Your task to perform on an android device: turn off picture-in-picture Image 0: 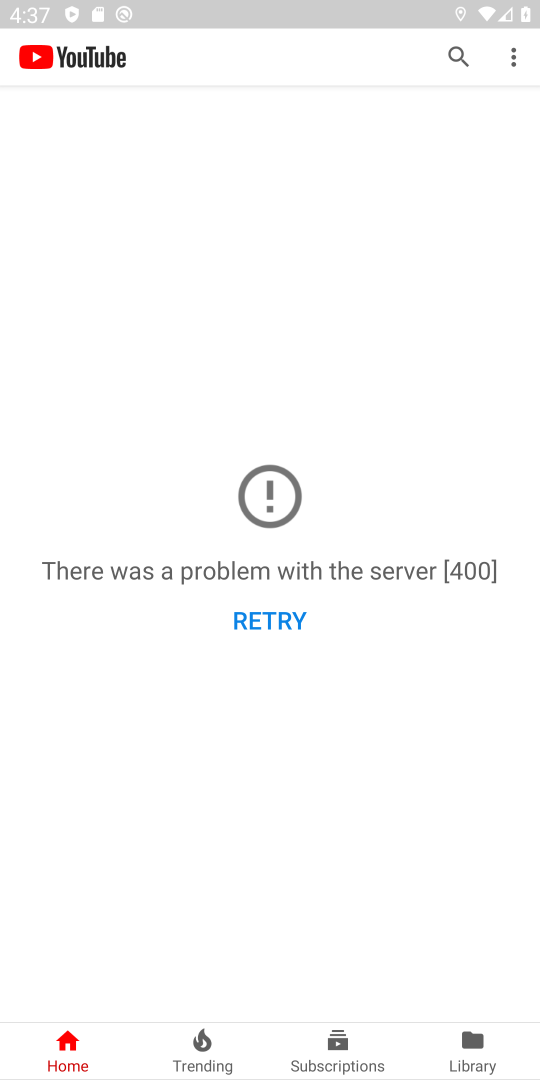
Step 0: press back button
Your task to perform on an android device: turn off picture-in-picture Image 1: 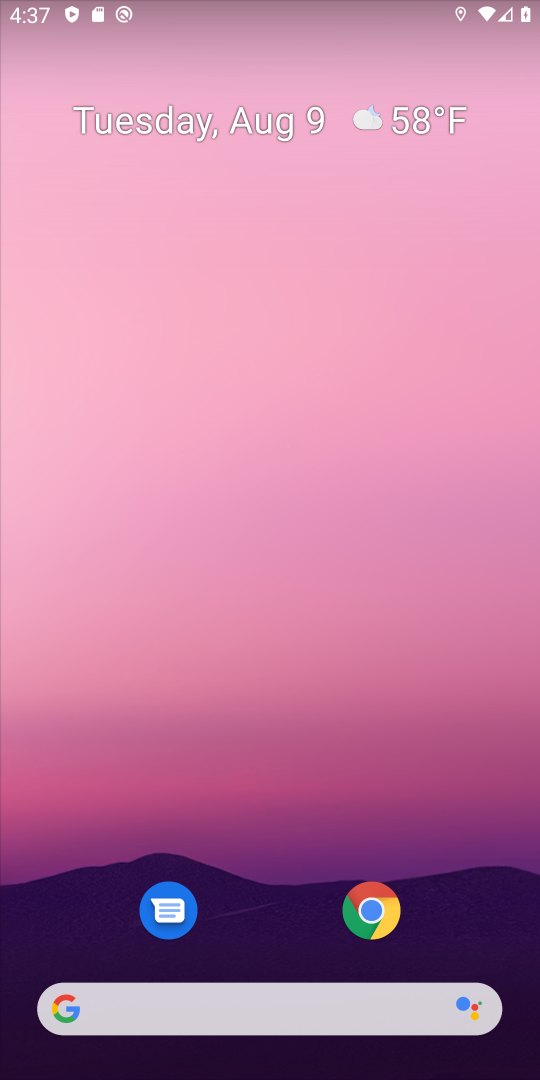
Step 1: click (386, 904)
Your task to perform on an android device: turn off picture-in-picture Image 2: 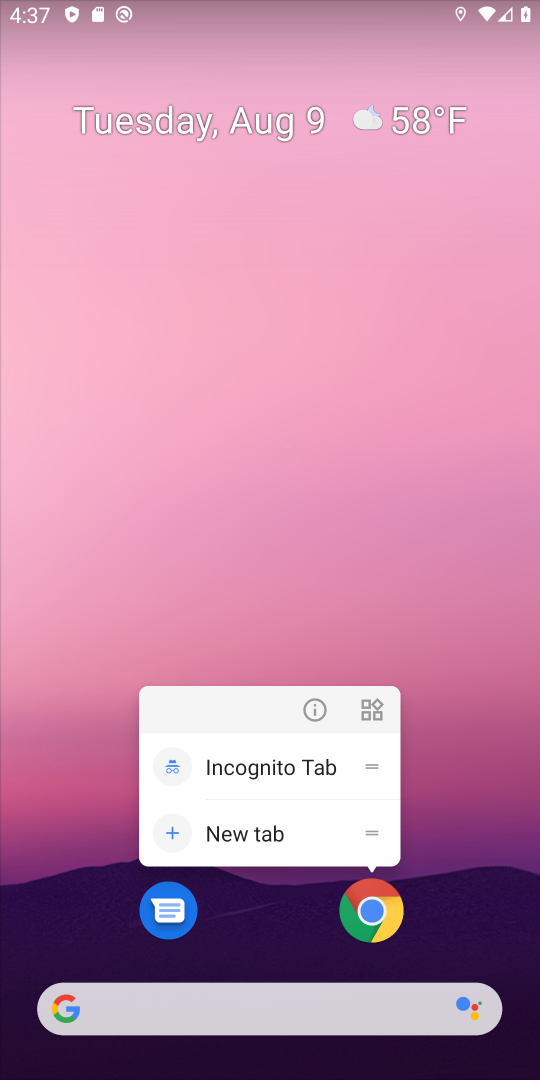
Step 2: click (319, 708)
Your task to perform on an android device: turn off picture-in-picture Image 3: 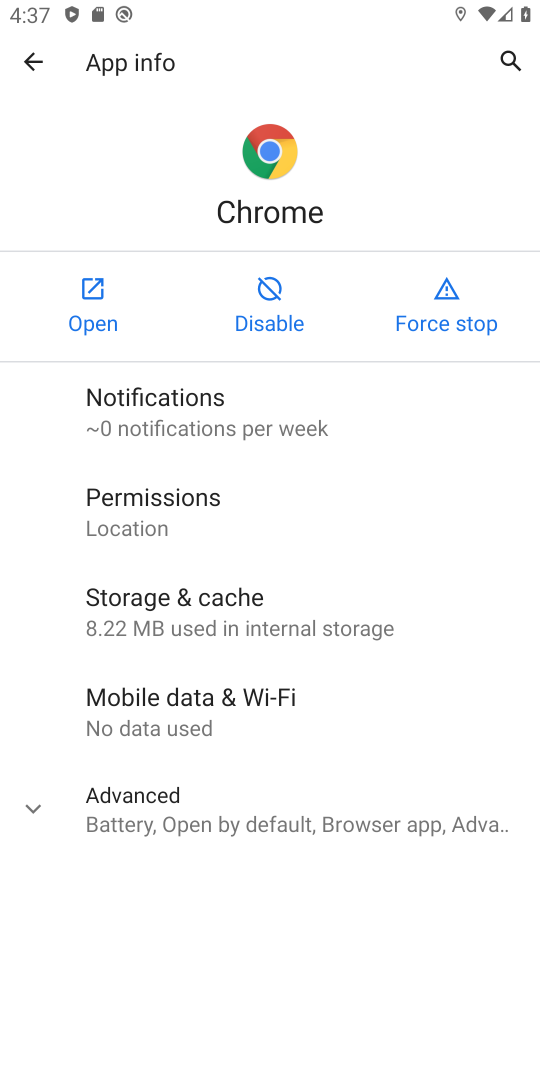
Step 3: click (145, 818)
Your task to perform on an android device: turn off picture-in-picture Image 4: 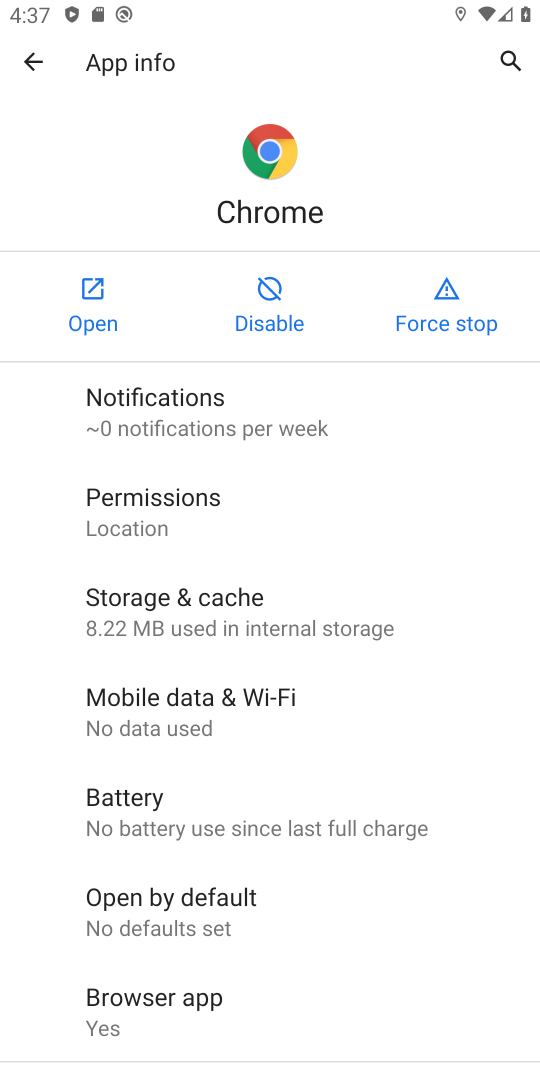
Step 4: drag from (263, 906) to (227, 373)
Your task to perform on an android device: turn off picture-in-picture Image 5: 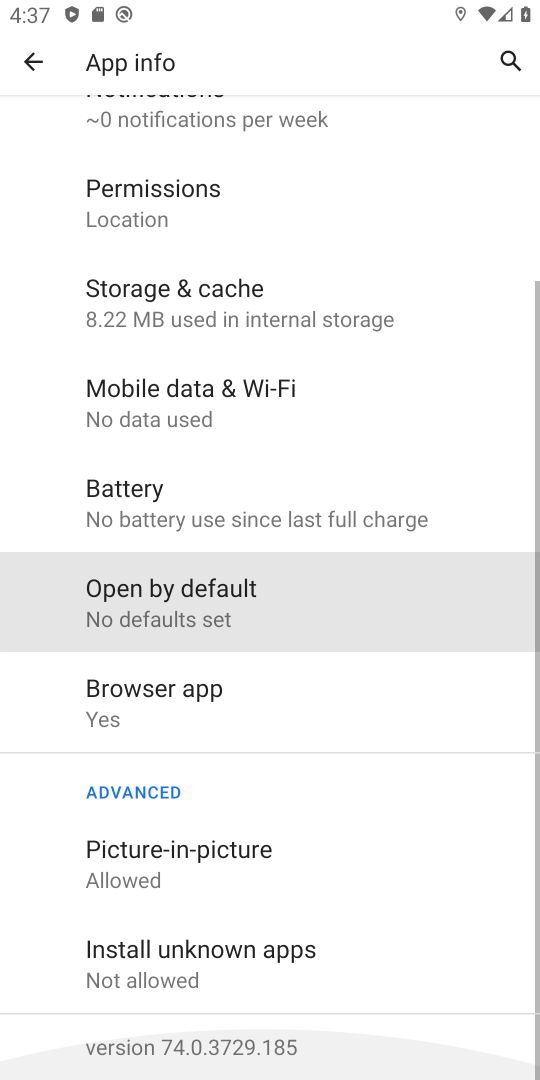
Step 5: drag from (322, 807) to (329, 382)
Your task to perform on an android device: turn off picture-in-picture Image 6: 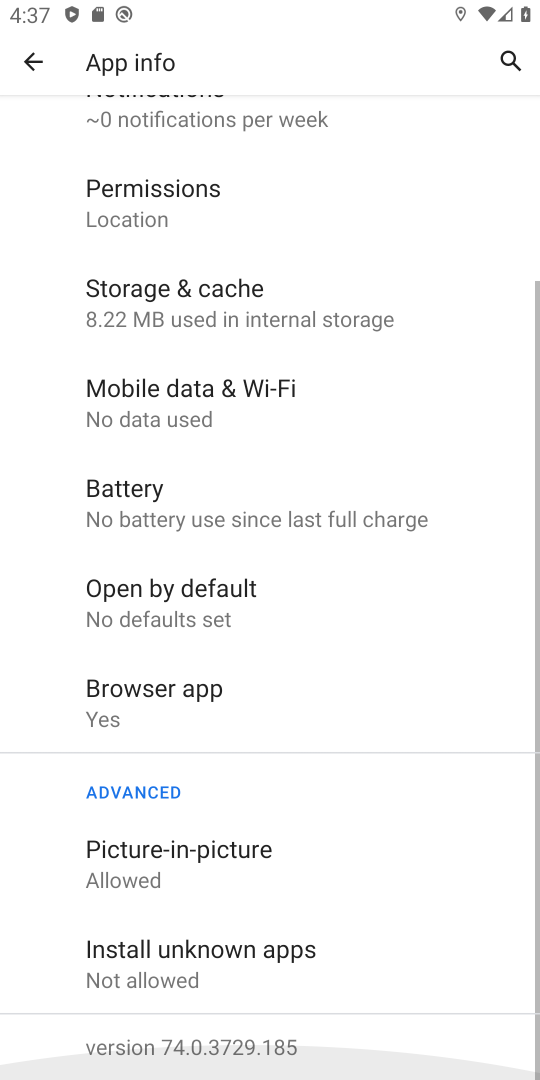
Step 6: drag from (361, 809) to (369, 533)
Your task to perform on an android device: turn off picture-in-picture Image 7: 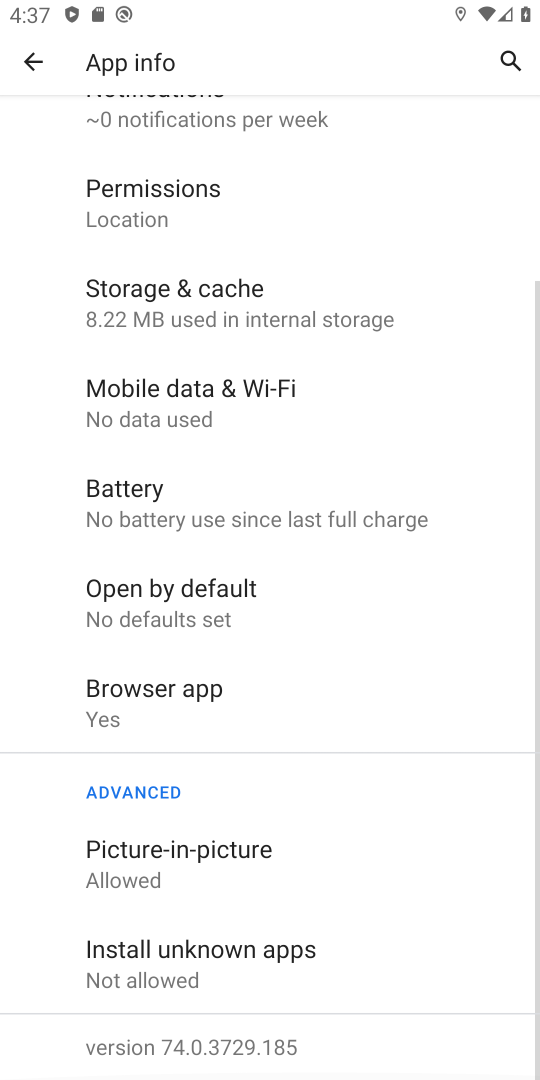
Step 7: click (118, 868)
Your task to perform on an android device: turn off picture-in-picture Image 8: 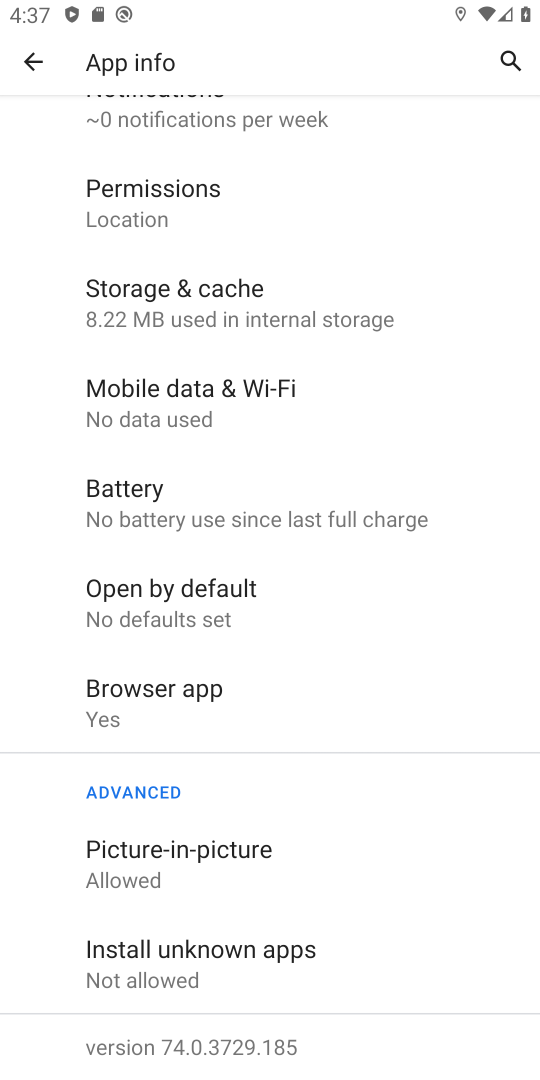
Step 8: click (129, 864)
Your task to perform on an android device: turn off picture-in-picture Image 9: 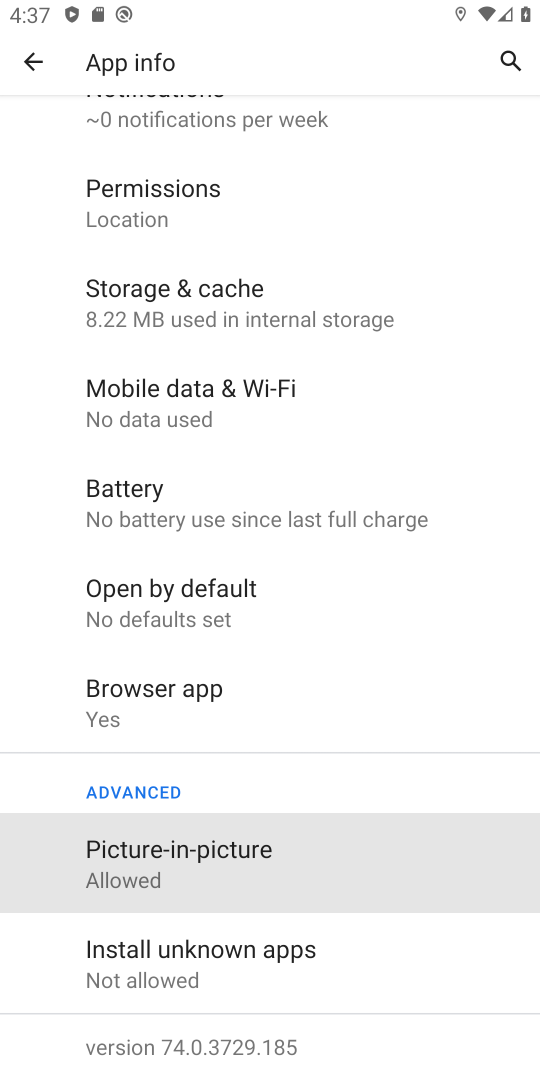
Step 9: click (129, 864)
Your task to perform on an android device: turn off picture-in-picture Image 10: 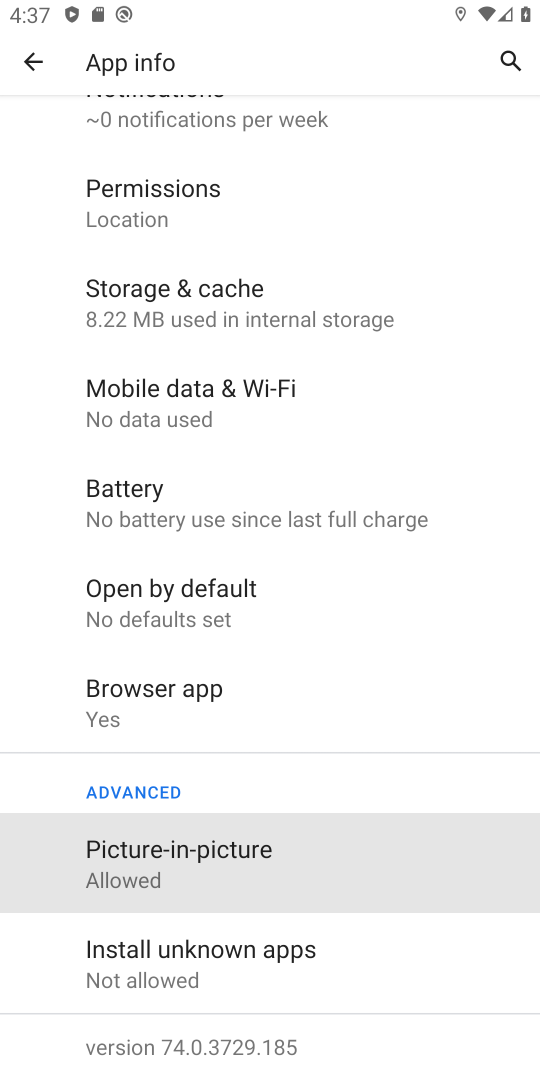
Step 10: click (132, 869)
Your task to perform on an android device: turn off picture-in-picture Image 11: 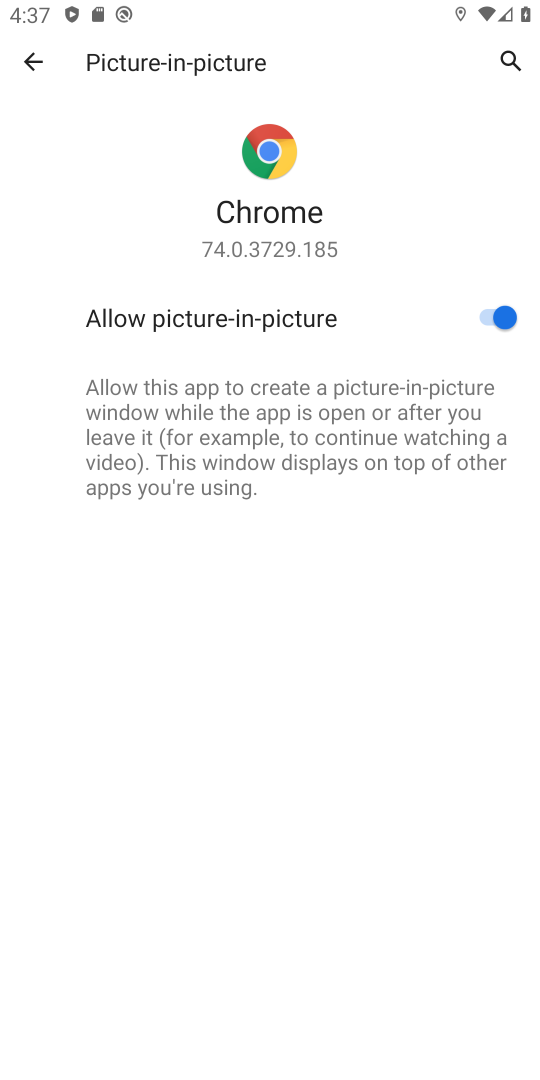
Step 11: click (506, 318)
Your task to perform on an android device: turn off picture-in-picture Image 12: 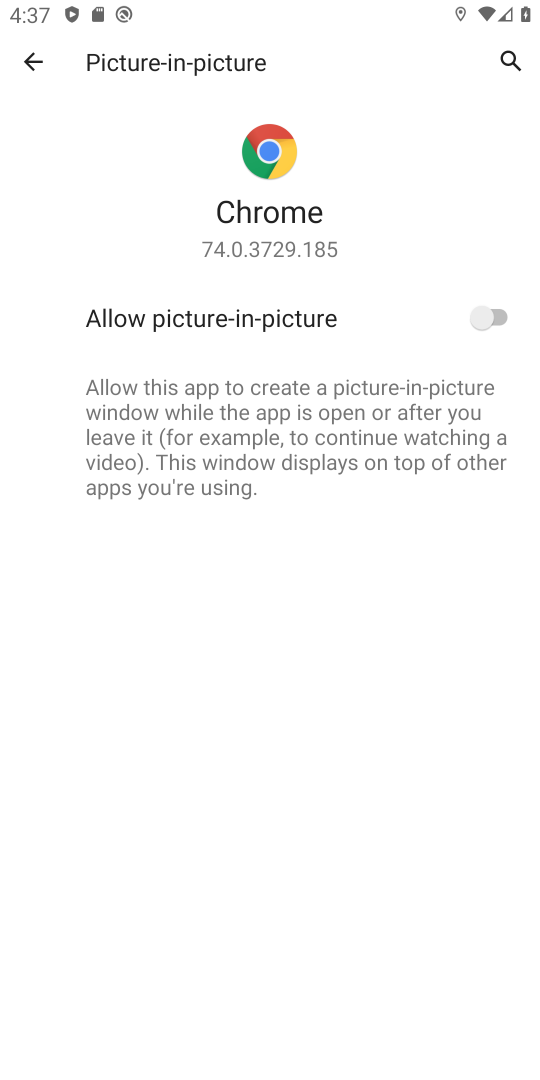
Step 12: task complete